Your task to perform on an android device: change notification settings in the gmail app Image 0: 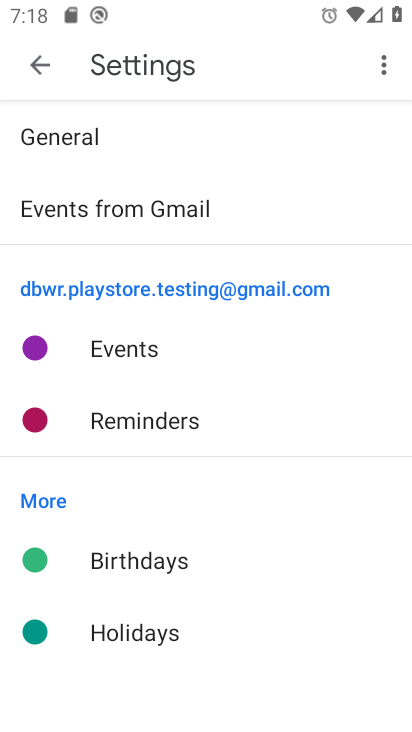
Step 0: press back button
Your task to perform on an android device: change notification settings in the gmail app Image 1: 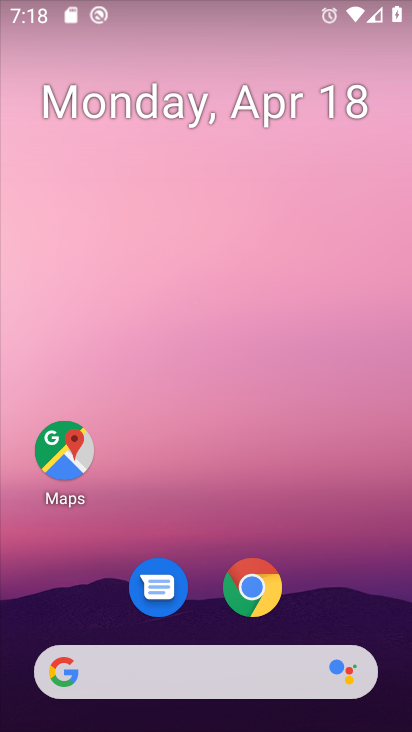
Step 1: click (258, 596)
Your task to perform on an android device: change notification settings in the gmail app Image 2: 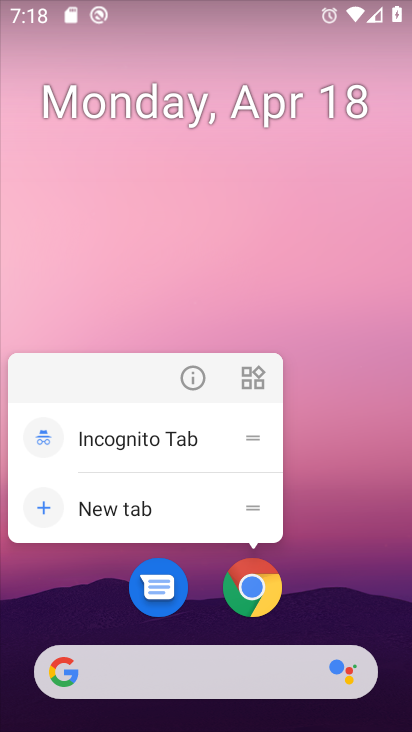
Step 2: click (368, 538)
Your task to perform on an android device: change notification settings in the gmail app Image 3: 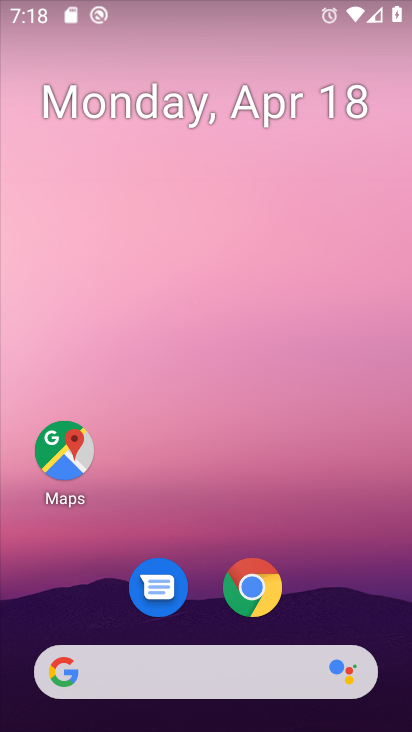
Step 3: drag from (337, 529) to (294, 134)
Your task to perform on an android device: change notification settings in the gmail app Image 4: 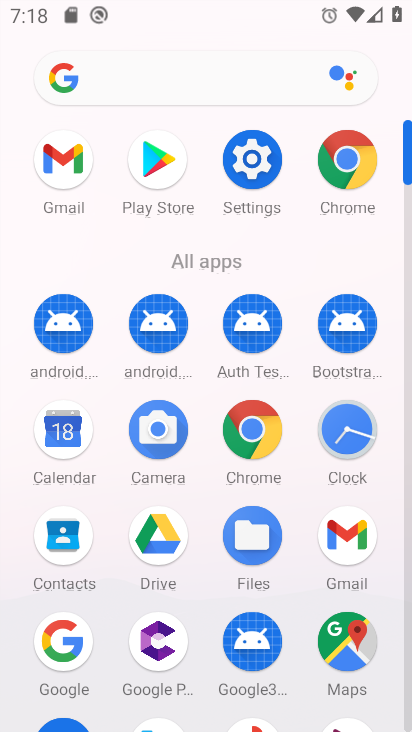
Step 4: click (78, 187)
Your task to perform on an android device: change notification settings in the gmail app Image 5: 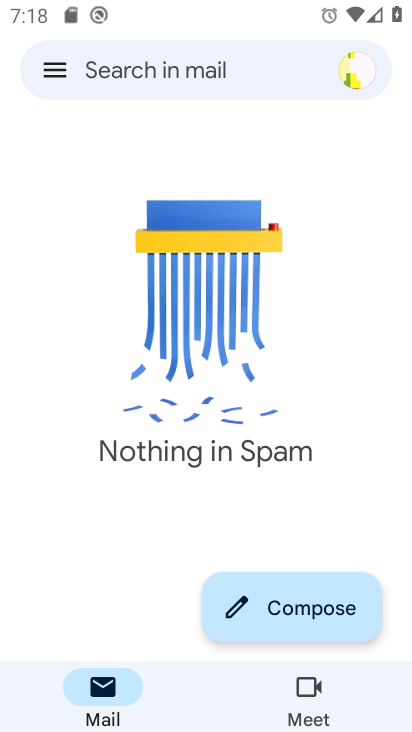
Step 5: click (69, 75)
Your task to perform on an android device: change notification settings in the gmail app Image 6: 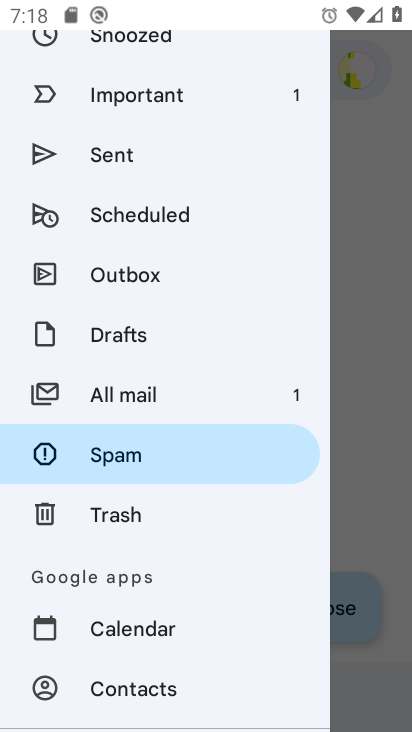
Step 6: drag from (124, 642) to (141, 293)
Your task to perform on an android device: change notification settings in the gmail app Image 7: 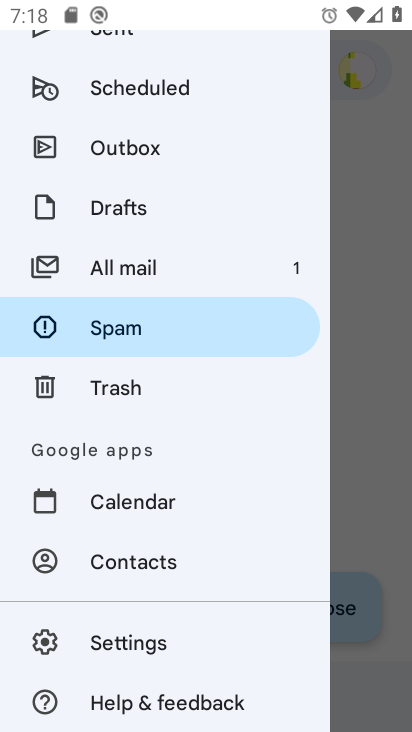
Step 7: click (171, 632)
Your task to perform on an android device: change notification settings in the gmail app Image 8: 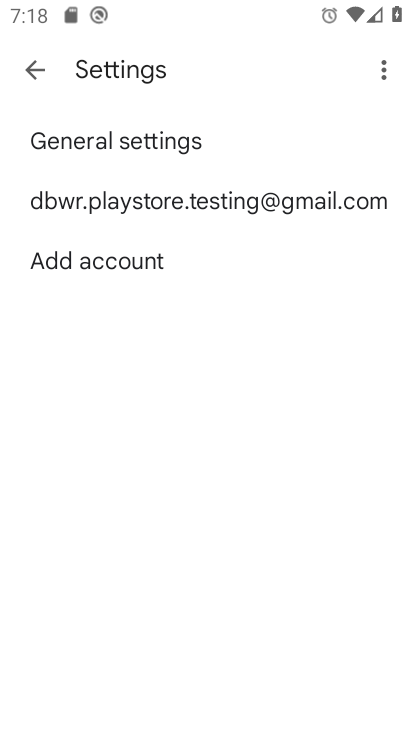
Step 8: click (143, 134)
Your task to perform on an android device: change notification settings in the gmail app Image 9: 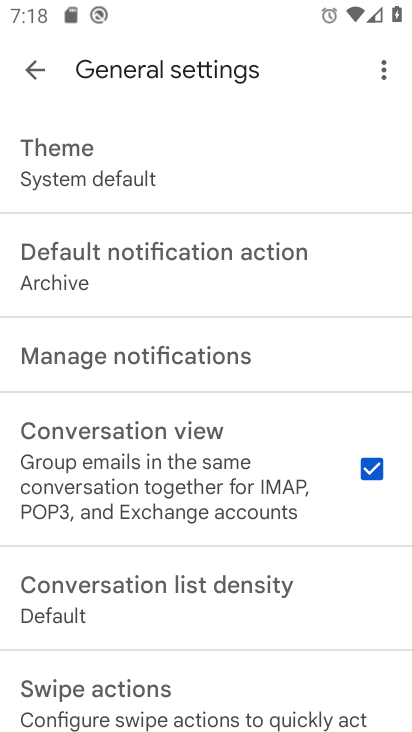
Step 9: click (168, 364)
Your task to perform on an android device: change notification settings in the gmail app Image 10: 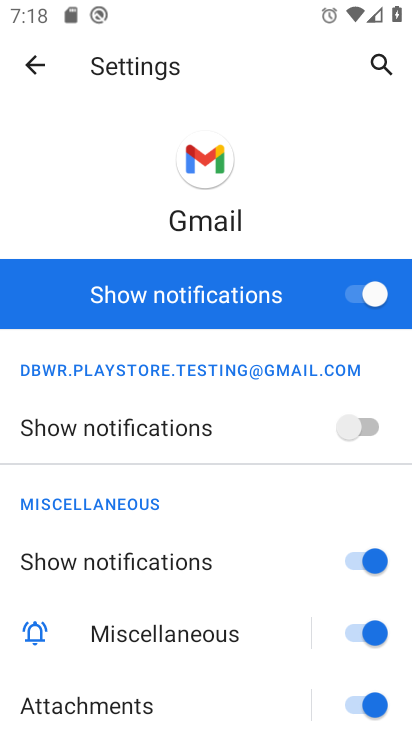
Step 10: click (276, 409)
Your task to perform on an android device: change notification settings in the gmail app Image 11: 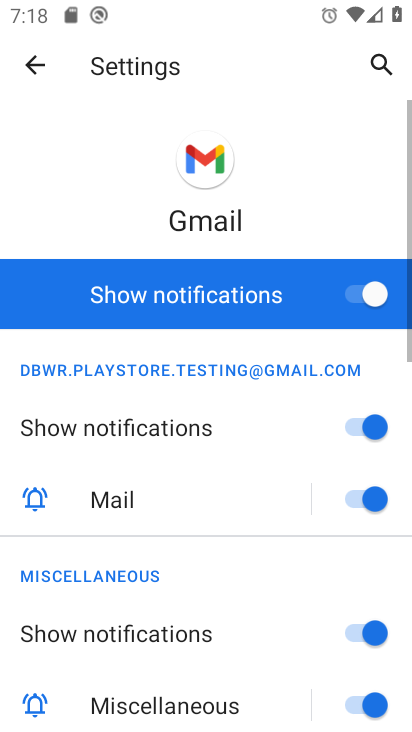
Step 11: task complete